Your task to perform on an android device: Empty the shopping cart on bestbuy. Add macbook pro 15 inch to the cart on bestbuy Image 0: 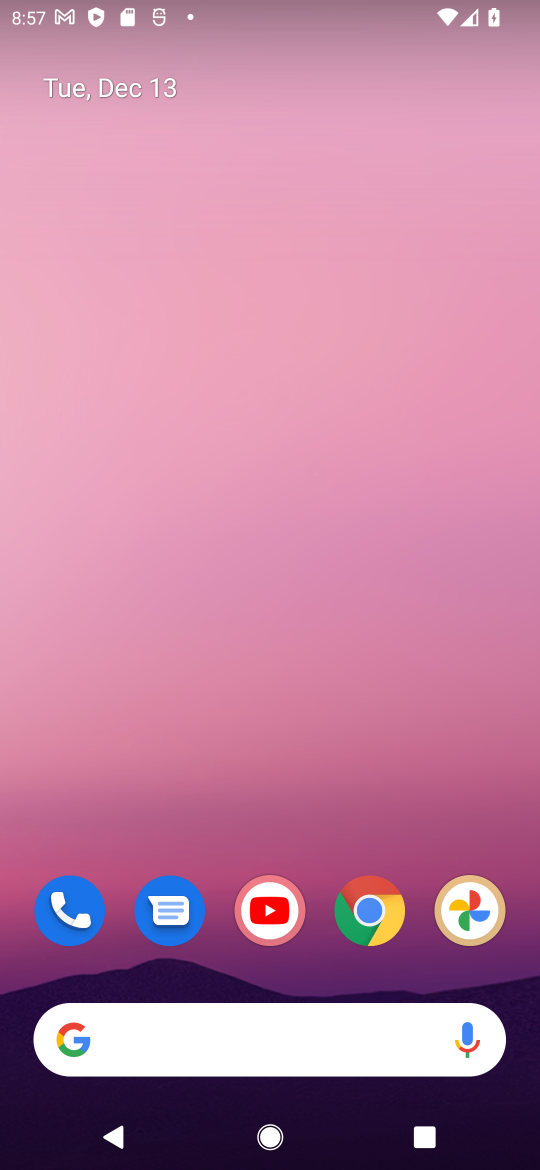
Step 0: drag from (143, 892) to (166, 440)
Your task to perform on an android device: Empty the shopping cart on bestbuy. Add macbook pro 15 inch to the cart on bestbuy Image 1: 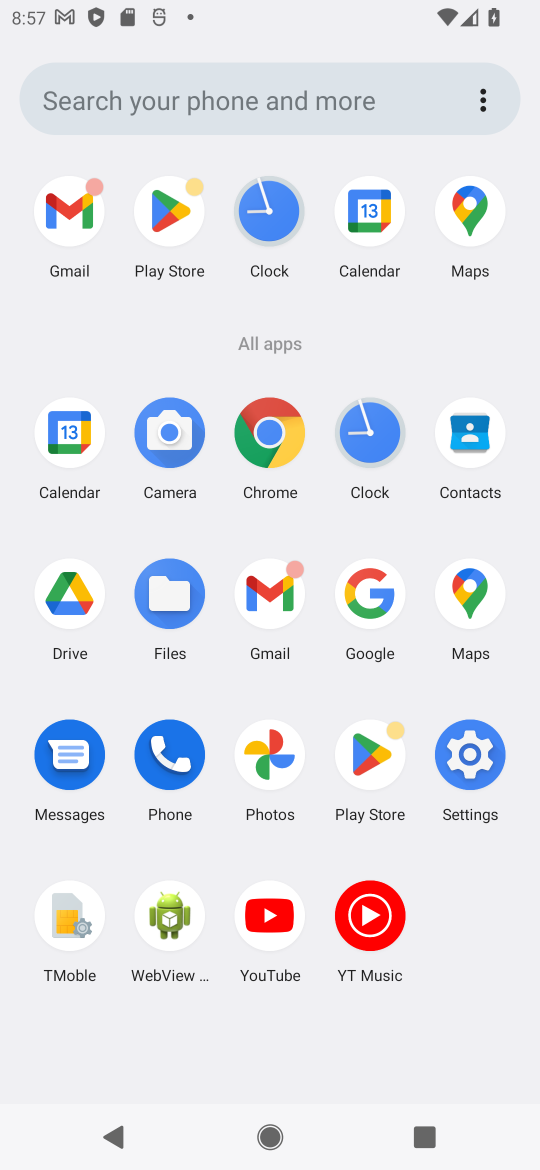
Step 1: click (365, 614)
Your task to perform on an android device: Empty the shopping cart on bestbuy. Add macbook pro 15 inch to the cart on bestbuy Image 2: 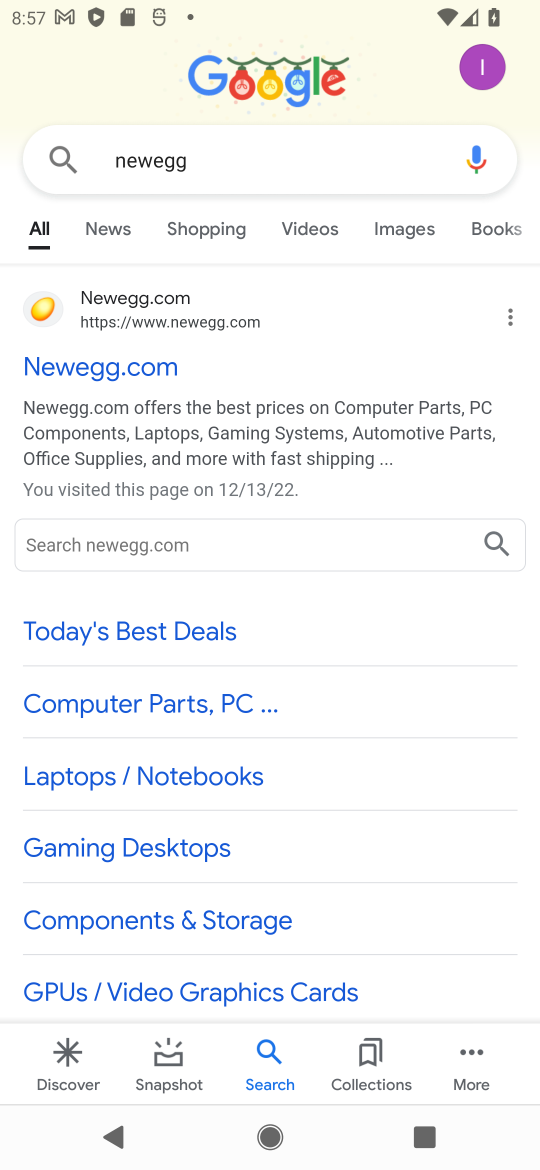
Step 2: click (151, 167)
Your task to perform on an android device: Empty the shopping cart on bestbuy. Add macbook pro 15 inch to the cart on bestbuy Image 3: 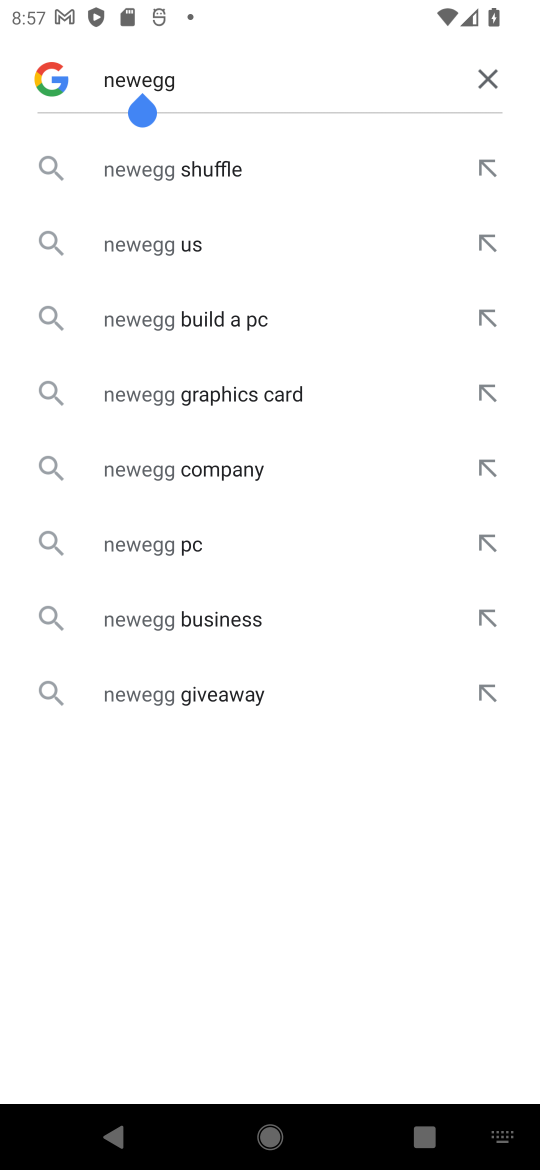
Step 3: click (476, 86)
Your task to perform on an android device: Empty the shopping cart on bestbuy. Add macbook pro 15 inch to the cart on bestbuy Image 4: 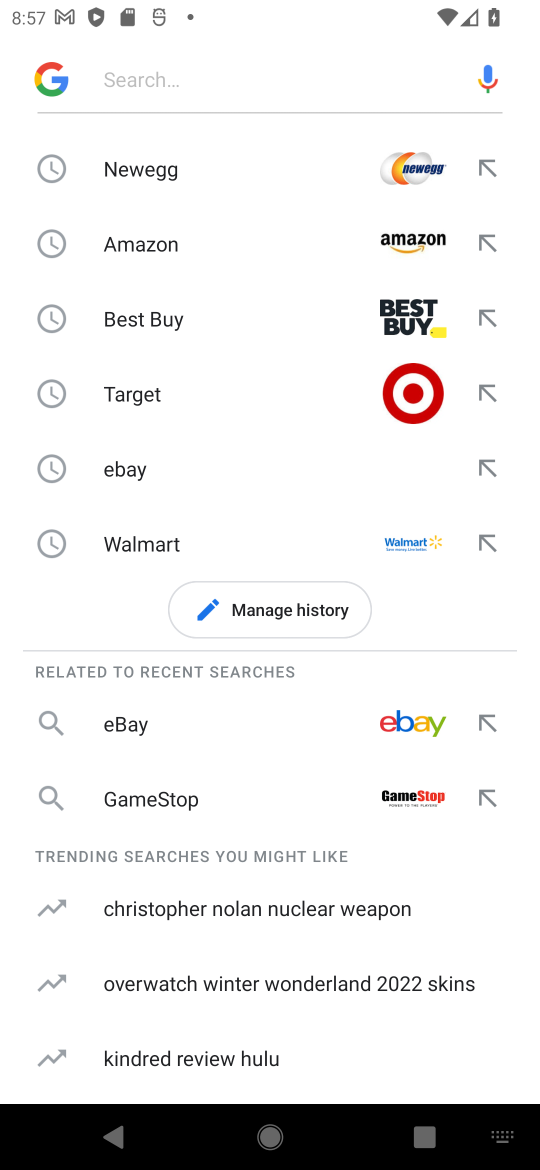
Step 4: click (132, 317)
Your task to perform on an android device: Empty the shopping cart on bestbuy. Add macbook pro 15 inch to the cart on bestbuy Image 5: 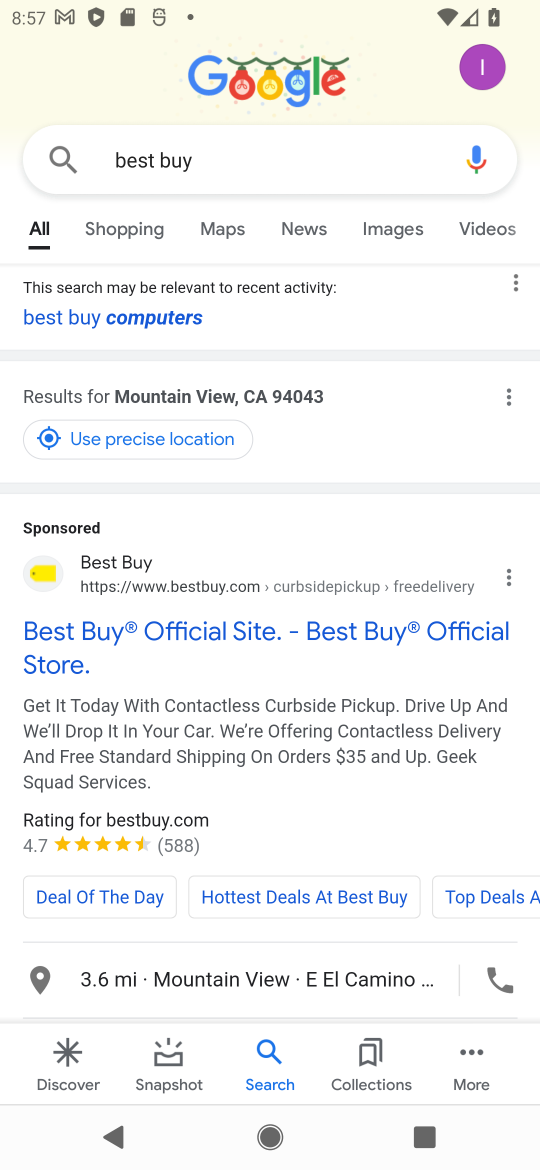
Step 5: click (107, 637)
Your task to perform on an android device: Empty the shopping cart on bestbuy. Add macbook pro 15 inch to the cart on bestbuy Image 6: 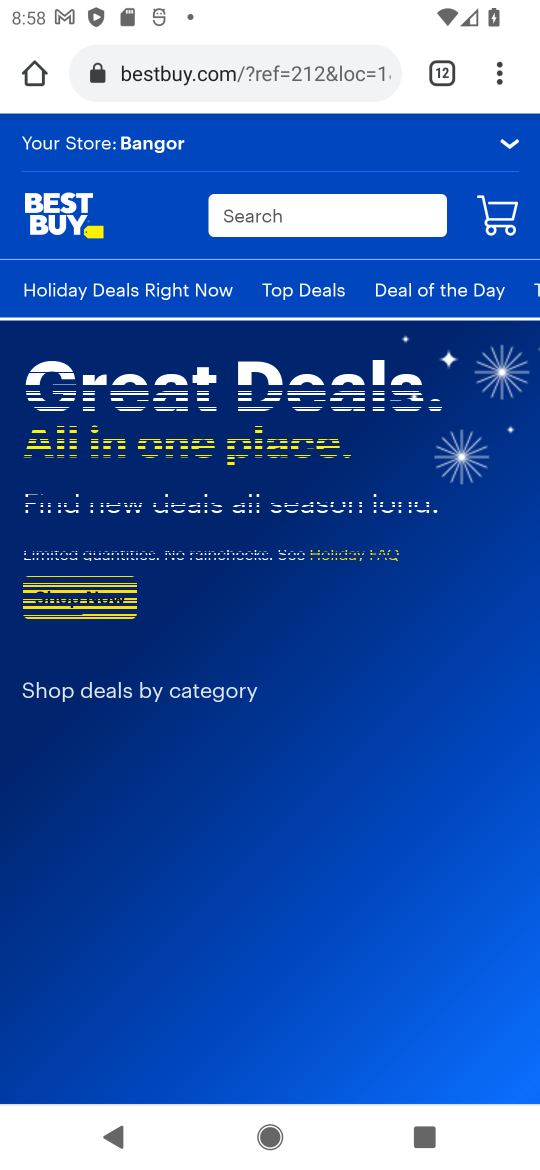
Step 6: click (277, 229)
Your task to perform on an android device: Empty the shopping cart on bestbuy. Add macbook pro 15 inch to the cart on bestbuy Image 7: 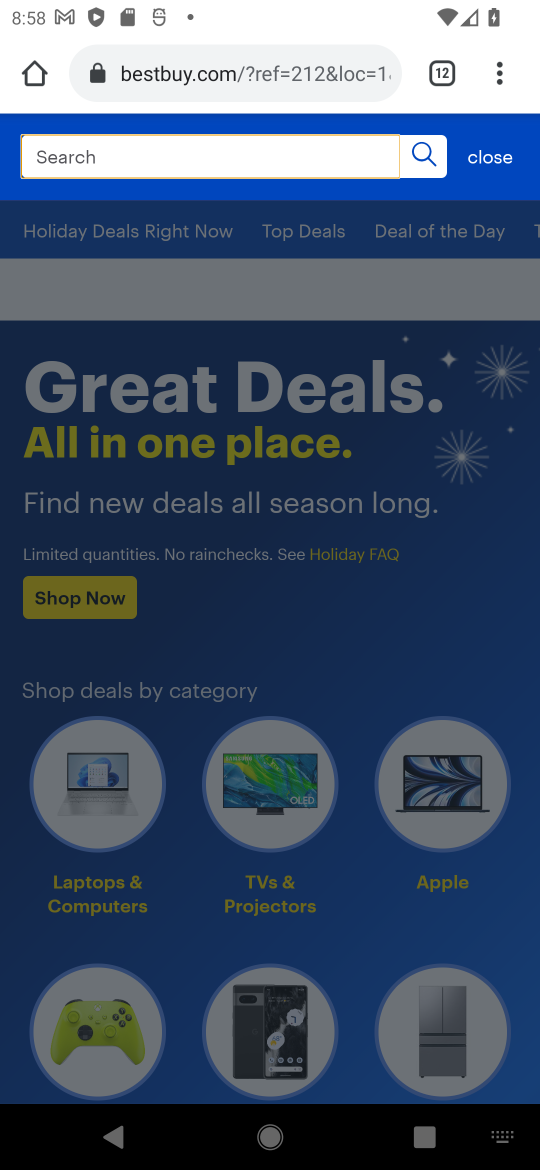
Step 7: type "macbook pro 15"
Your task to perform on an android device: Empty the shopping cart on bestbuy. Add macbook pro 15 inch to the cart on bestbuy Image 8: 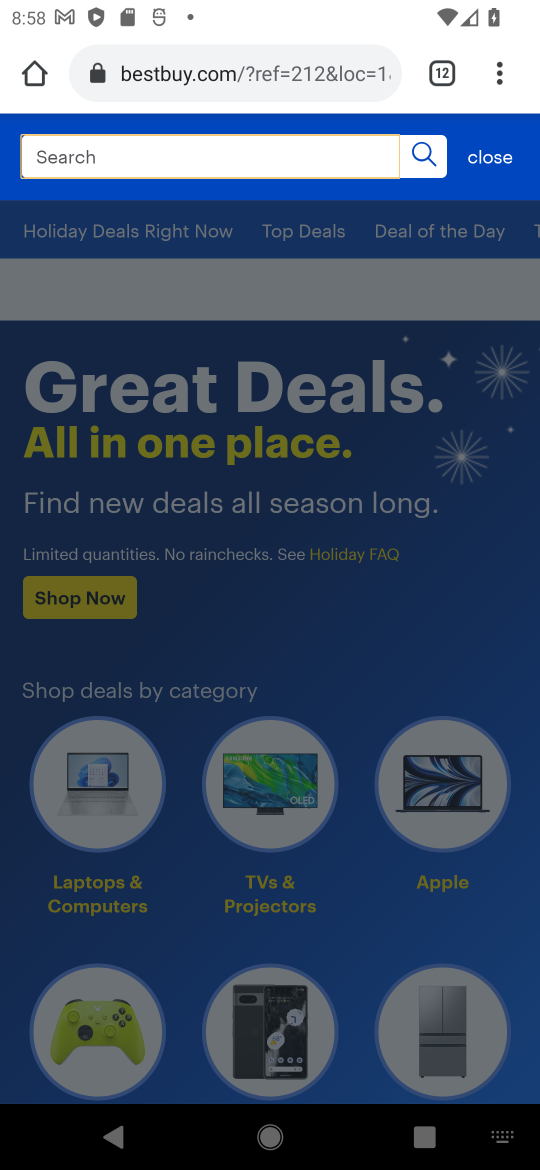
Step 8: click (429, 148)
Your task to perform on an android device: Empty the shopping cart on bestbuy. Add macbook pro 15 inch to the cart on bestbuy Image 9: 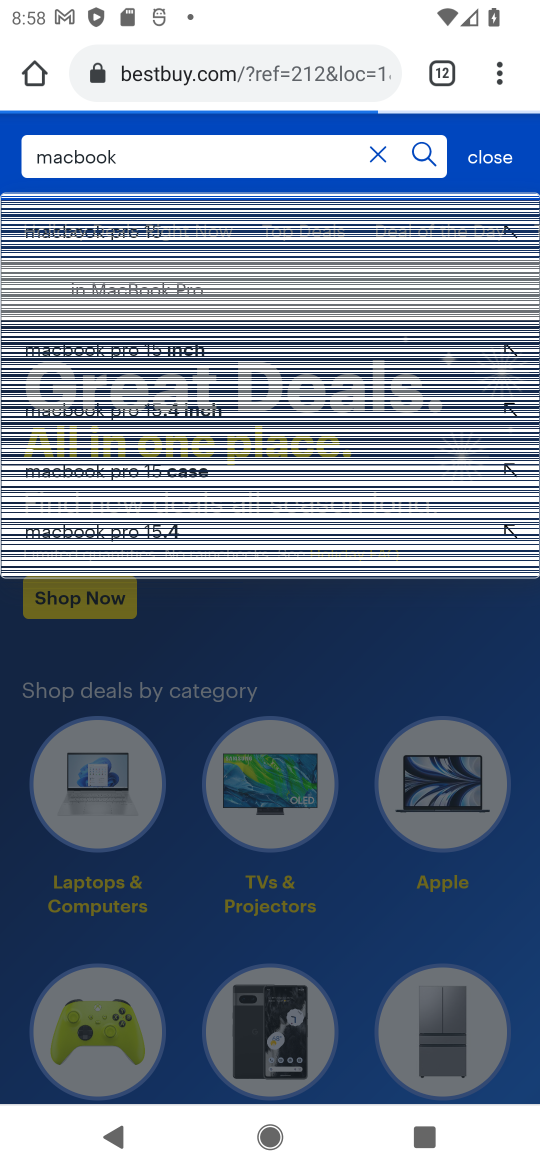
Step 9: click (76, 233)
Your task to perform on an android device: Empty the shopping cart on bestbuy. Add macbook pro 15 inch to the cart on bestbuy Image 10: 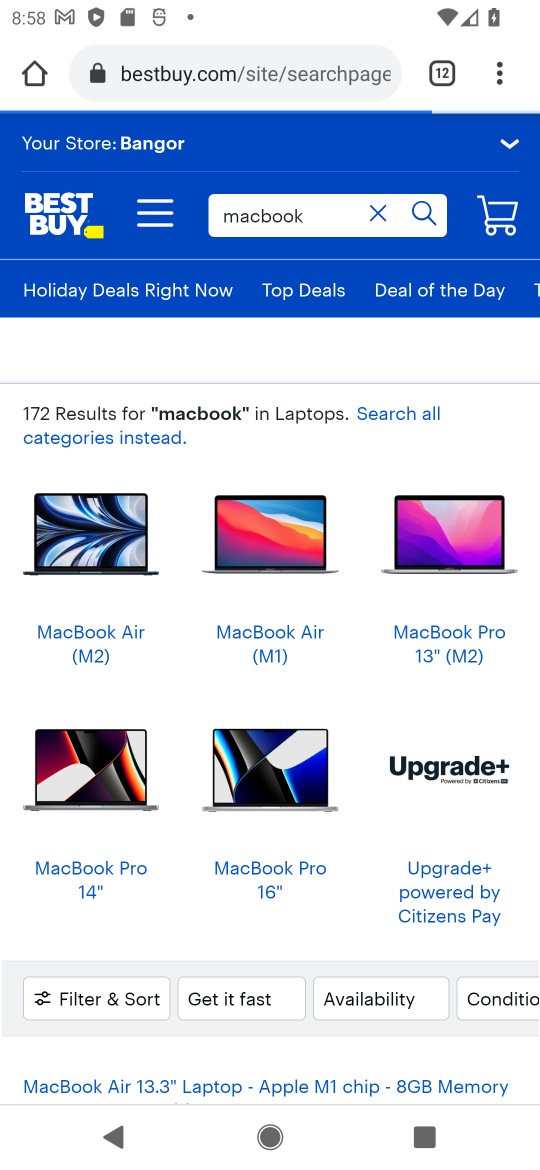
Step 10: drag from (197, 962) to (196, 554)
Your task to perform on an android device: Empty the shopping cart on bestbuy. Add macbook pro 15 inch to the cart on bestbuy Image 11: 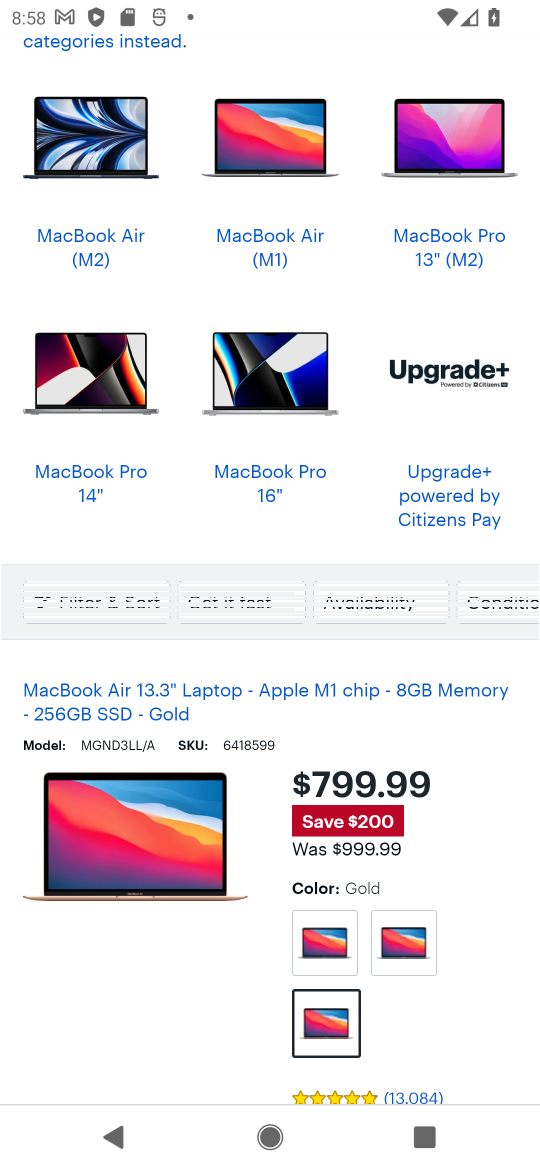
Step 11: drag from (183, 968) to (183, 601)
Your task to perform on an android device: Empty the shopping cart on bestbuy. Add macbook pro 15 inch to the cart on bestbuy Image 12: 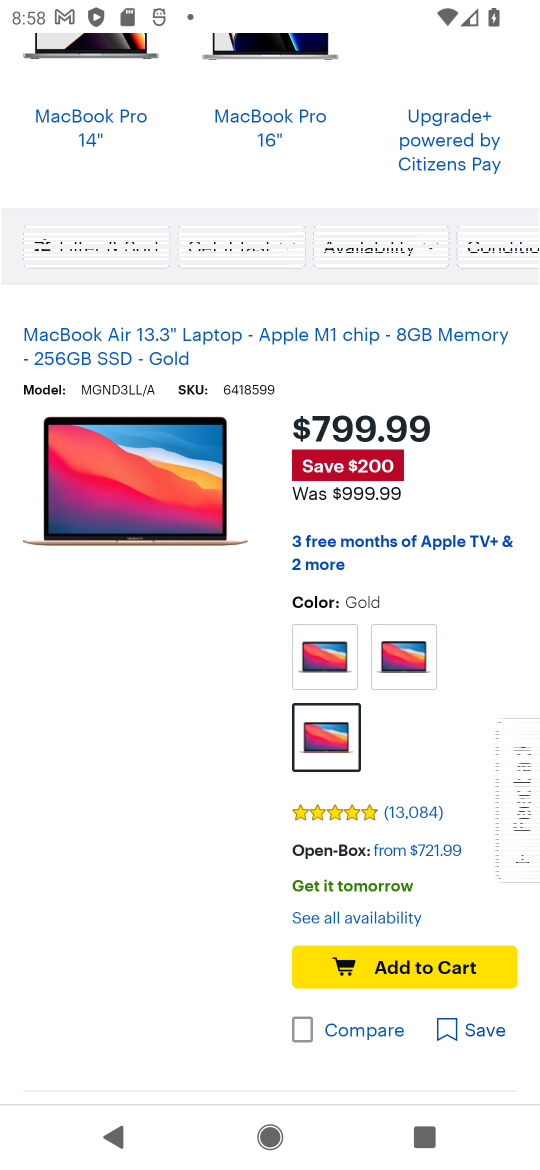
Step 12: click (401, 968)
Your task to perform on an android device: Empty the shopping cart on bestbuy. Add macbook pro 15 inch to the cart on bestbuy Image 13: 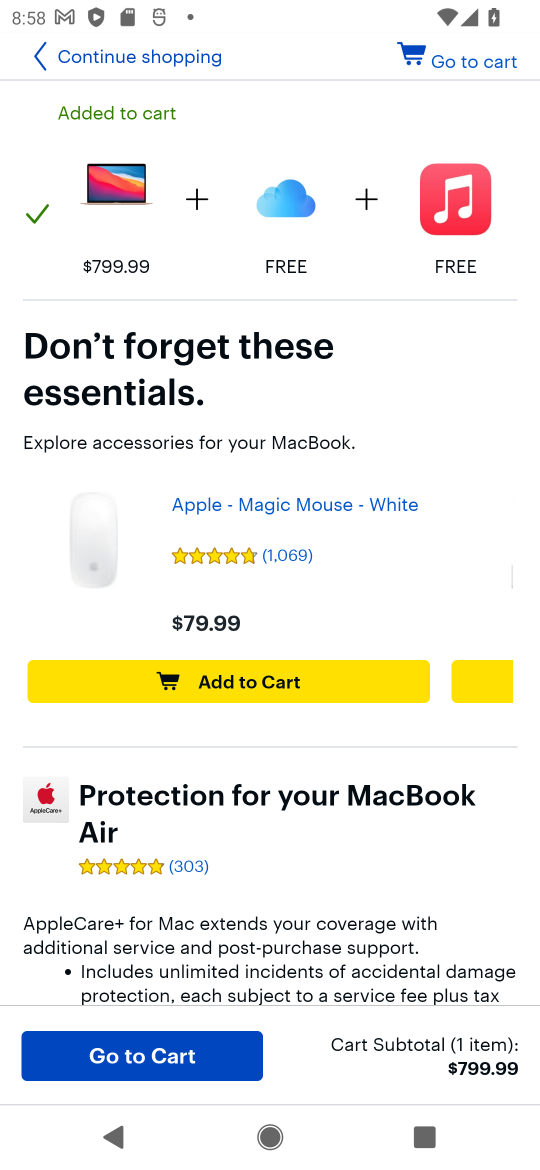
Step 13: click (111, 1062)
Your task to perform on an android device: Empty the shopping cart on bestbuy. Add macbook pro 15 inch to the cart on bestbuy Image 14: 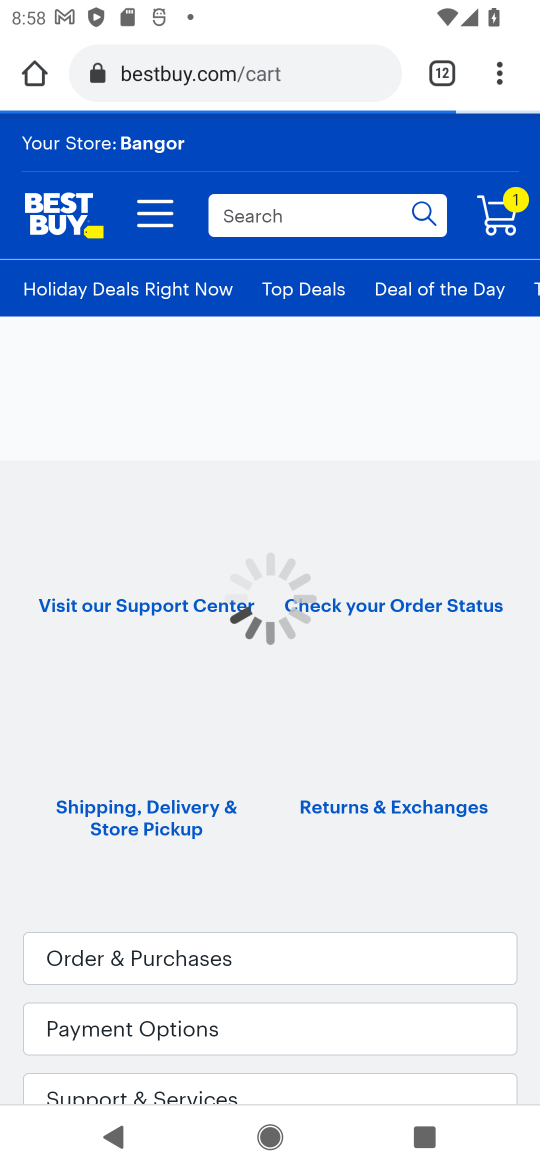
Step 14: task complete